Your task to perform on an android device: Open Youtube and go to "Your channel" Image 0: 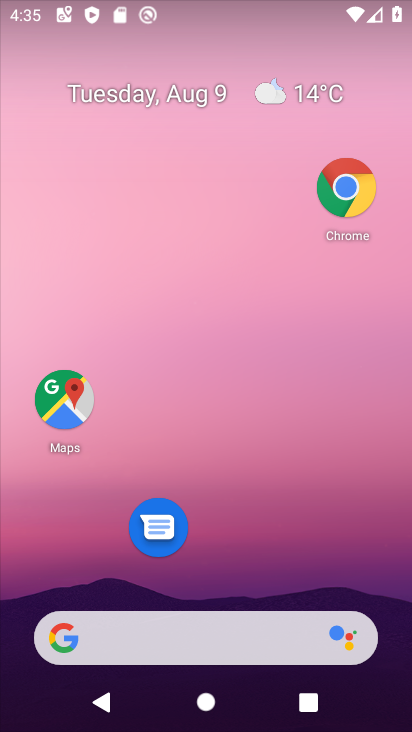
Step 0: drag from (216, 535) to (230, 0)
Your task to perform on an android device: Open Youtube and go to "Your channel" Image 1: 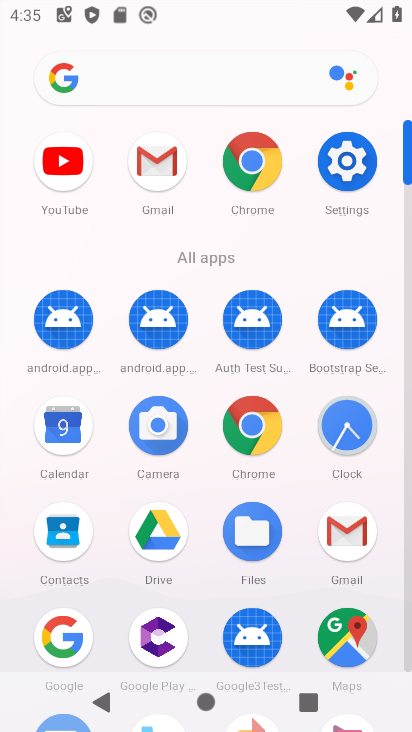
Step 1: click (69, 176)
Your task to perform on an android device: Open Youtube and go to "Your channel" Image 2: 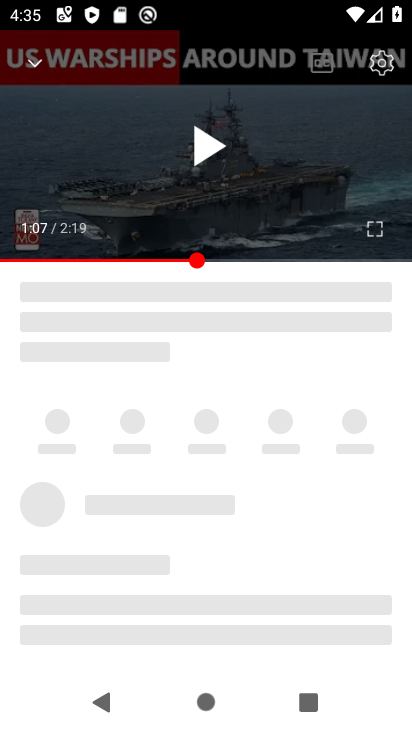
Step 2: click (31, 58)
Your task to perform on an android device: Open Youtube and go to "Your channel" Image 3: 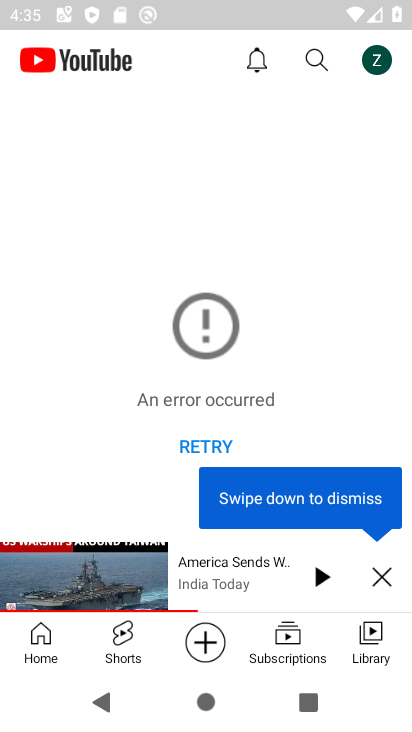
Step 3: click (325, 54)
Your task to perform on an android device: Open Youtube and go to "Your channel" Image 4: 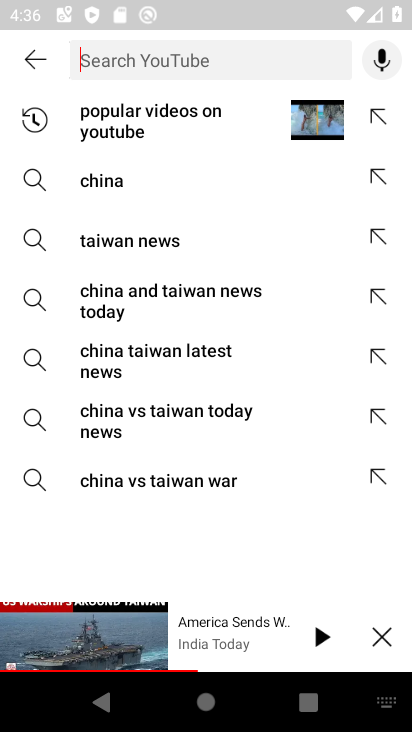
Step 4: type "your channel"
Your task to perform on an android device: Open Youtube and go to "Your channel" Image 5: 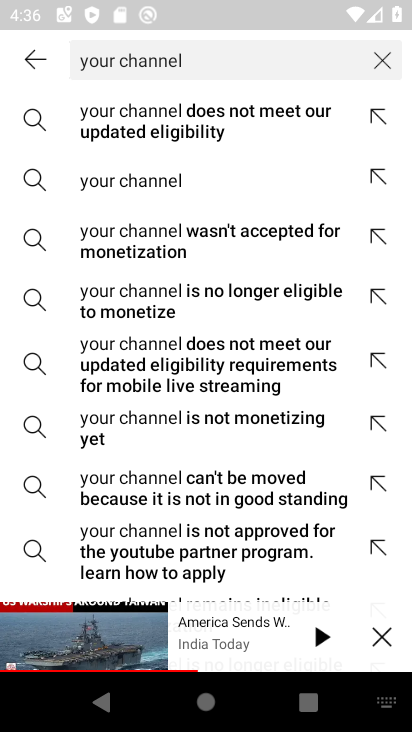
Step 5: click (207, 175)
Your task to perform on an android device: Open Youtube and go to "Your channel" Image 6: 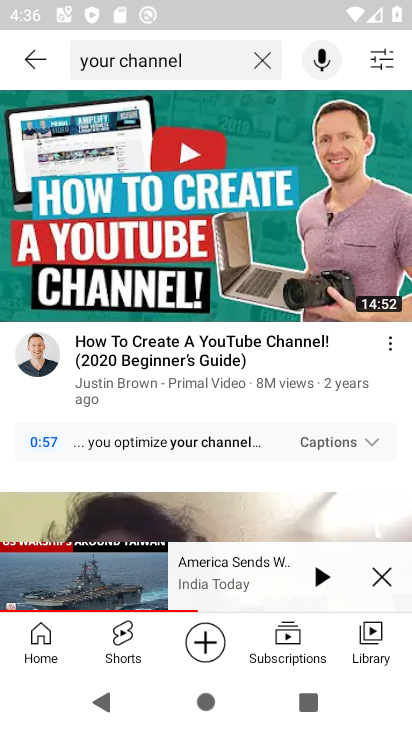
Step 6: task complete